Your task to perform on an android device: open the mobile data screen to see how much data has been used Image 0: 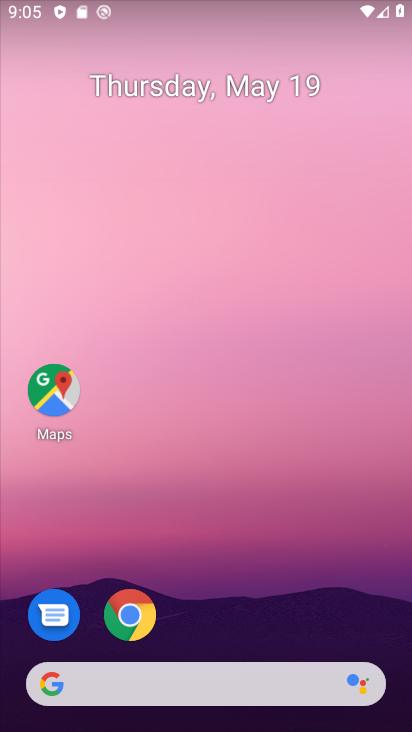
Step 0: drag from (265, 580) to (209, 0)
Your task to perform on an android device: open the mobile data screen to see how much data has been used Image 1: 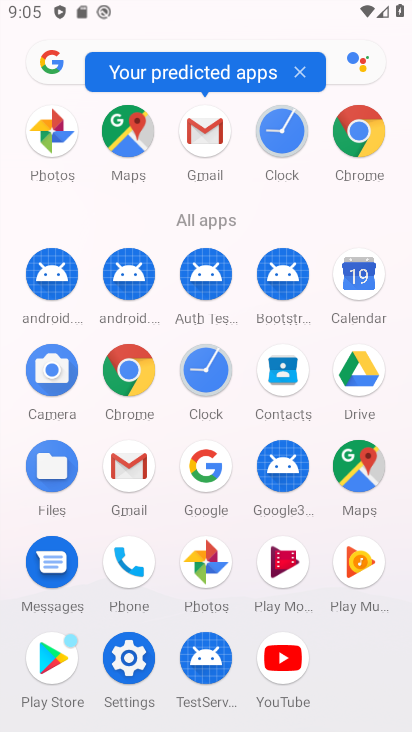
Step 1: click (123, 655)
Your task to perform on an android device: open the mobile data screen to see how much data has been used Image 2: 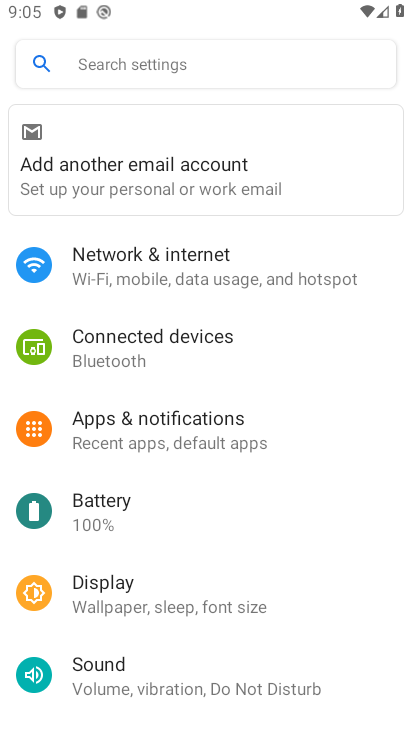
Step 2: click (231, 294)
Your task to perform on an android device: open the mobile data screen to see how much data has been used Image 3: 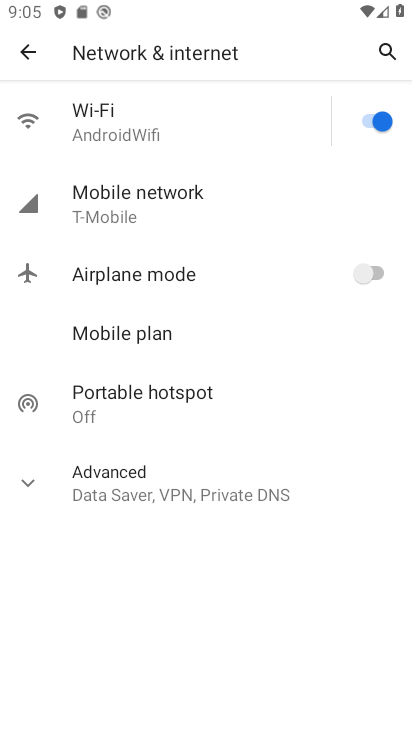
Step 3: click (82, 195)
Your task to perform on an android device: open the mobile data screen to see how much data has been used Image 4: 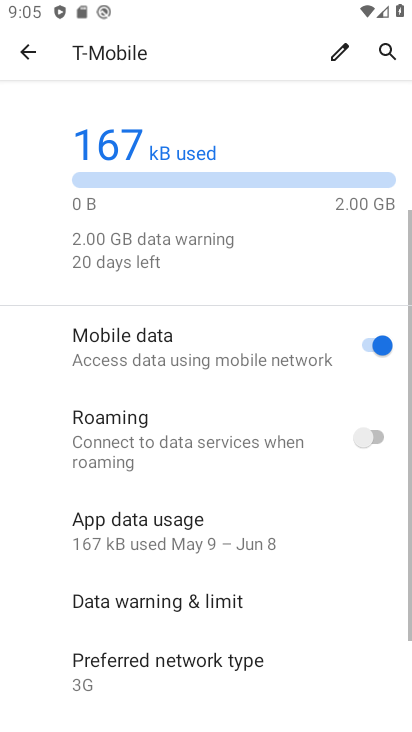
Step 4: drag from (208, 453) to (157, 245)
Your task to perform on an android device: open the mobile data screen to see how much data has been used Image 5: 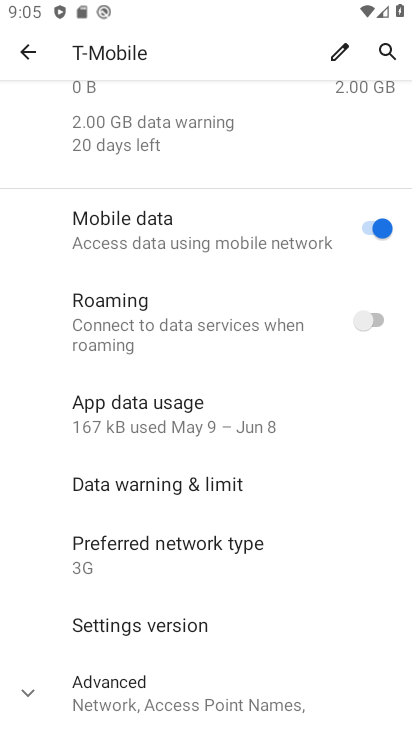
Step 5: click (160, 440)
Your task to perform on an android device: open the mobile data screen to see how much data has been used Image 6: 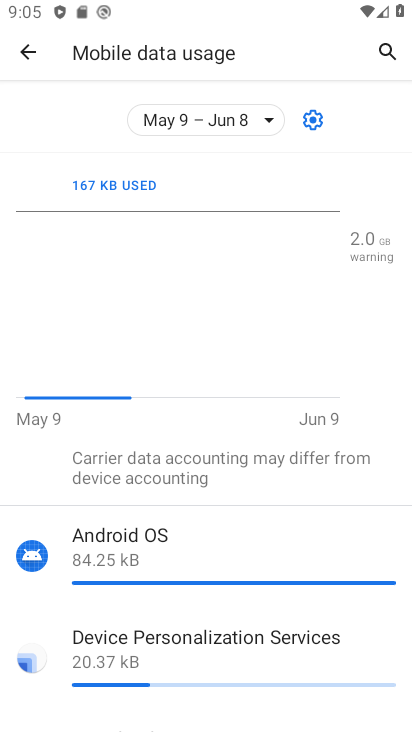
Step 6: task complete